Your task to perform on an android device: Go to battery settings Image 0: 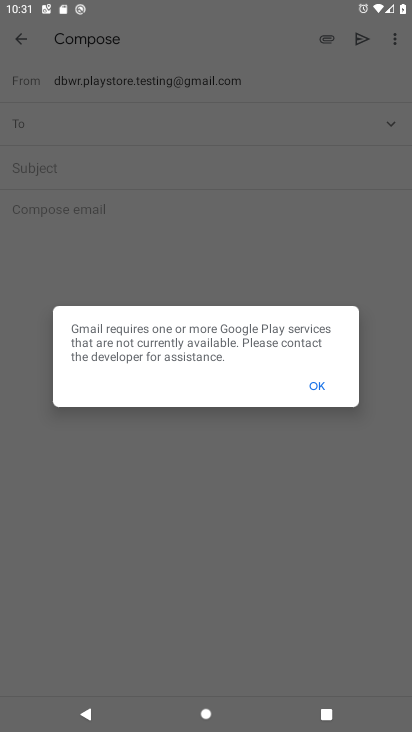
Step 0: press back button
Your task to perform on an android device: Go to battery settings Image 1: 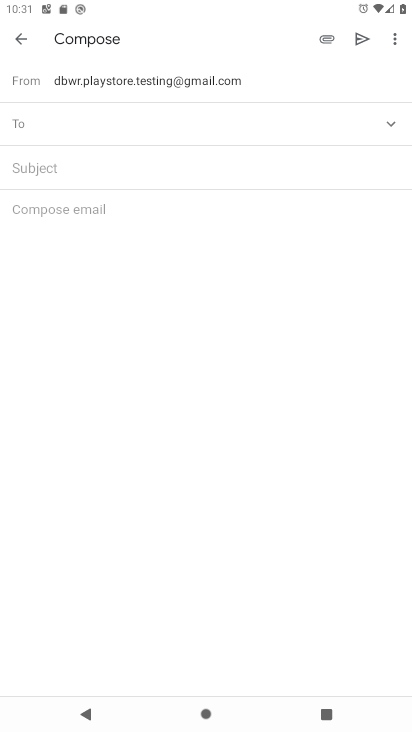
Step 1: press back button
Your task to perform on an android device: Go to battery settings Image 2: 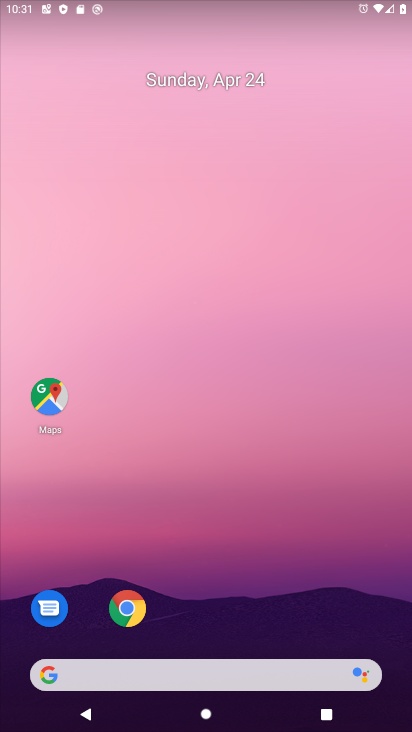
Step 2: drag from (264, 618) to (286, 9)
Your task to perform on an android device: Go to battery settings Image 3: 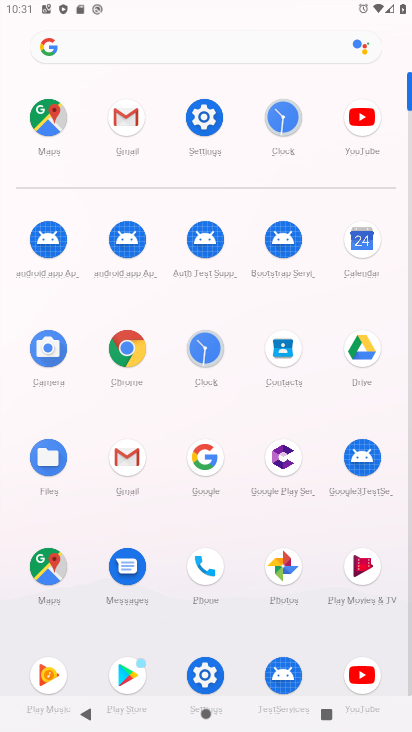
Step 3: drag from (8, 518) to (25, 249)
Your task to perform on an android device: Go to battery settings Image 4: 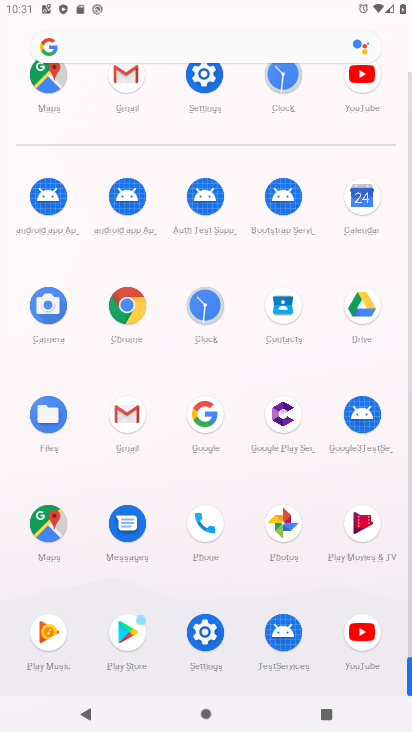
Step 4: click (210, 629)
Your task to perform on an android device: Go to battery settings Image 5: 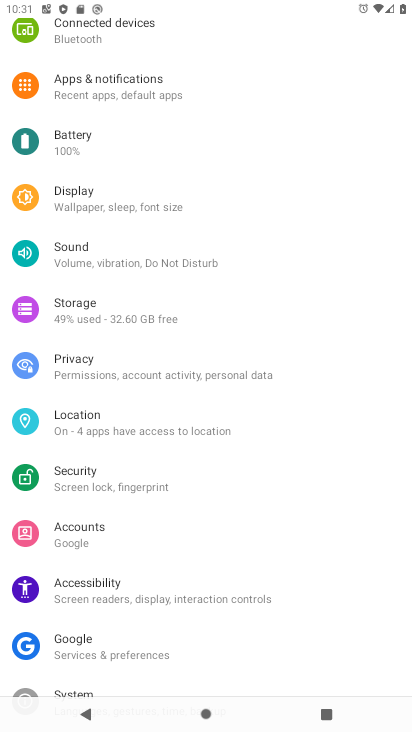
Step 5: drag from (243, 145) to (231, 538)
Your task to perform on an android device: Go to battery settings Image 6: 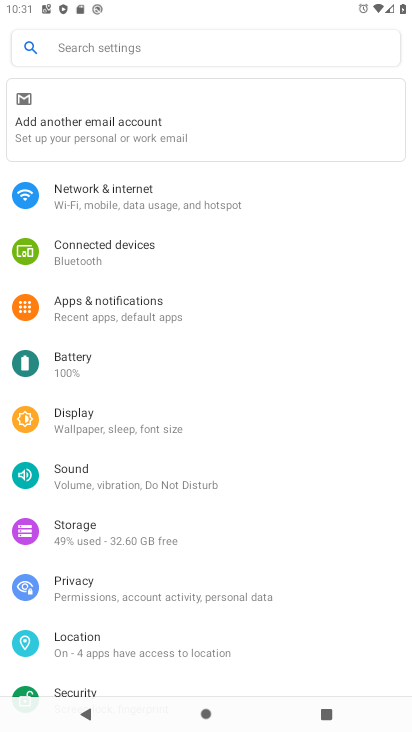
Step 6: click (108, 350)
Your task to perform on an android device: Go to battery settings Image 7: 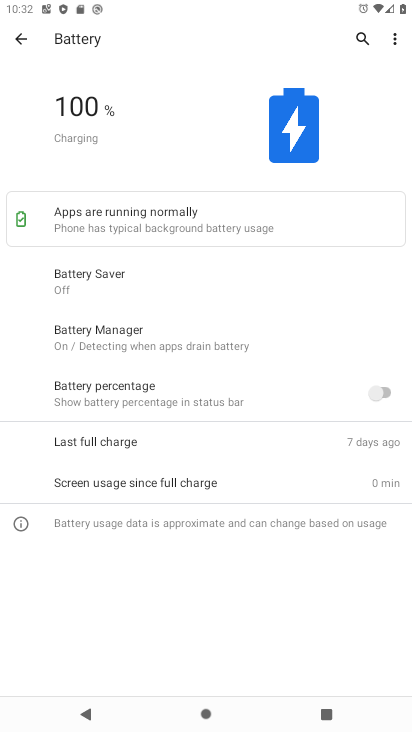
Step 7: task complete